Your task to perform on an android device: Open my contact list Image 0: 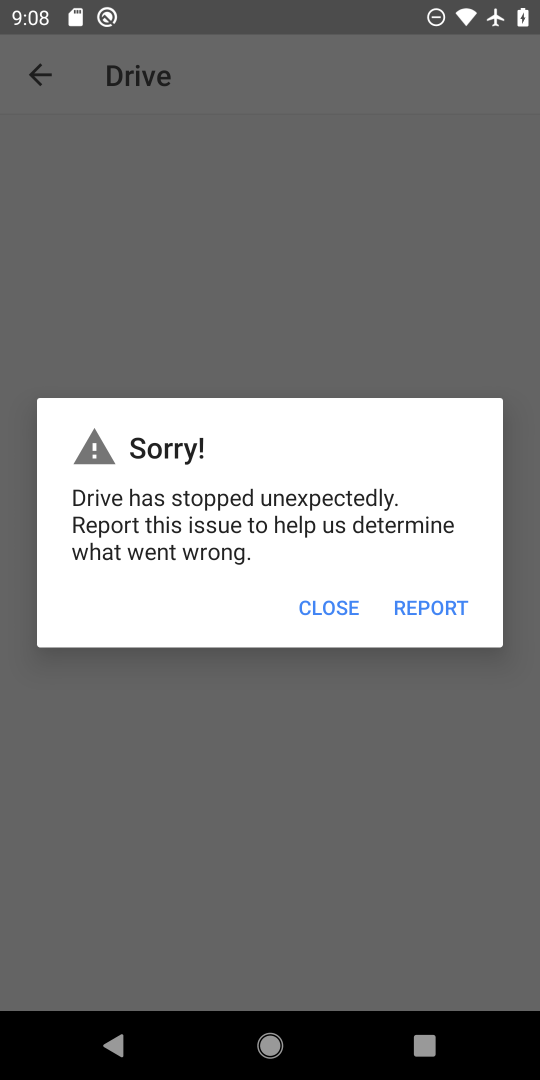
Step 0: press home button
Your task to perform on an android device: Open my contact list Image 1: 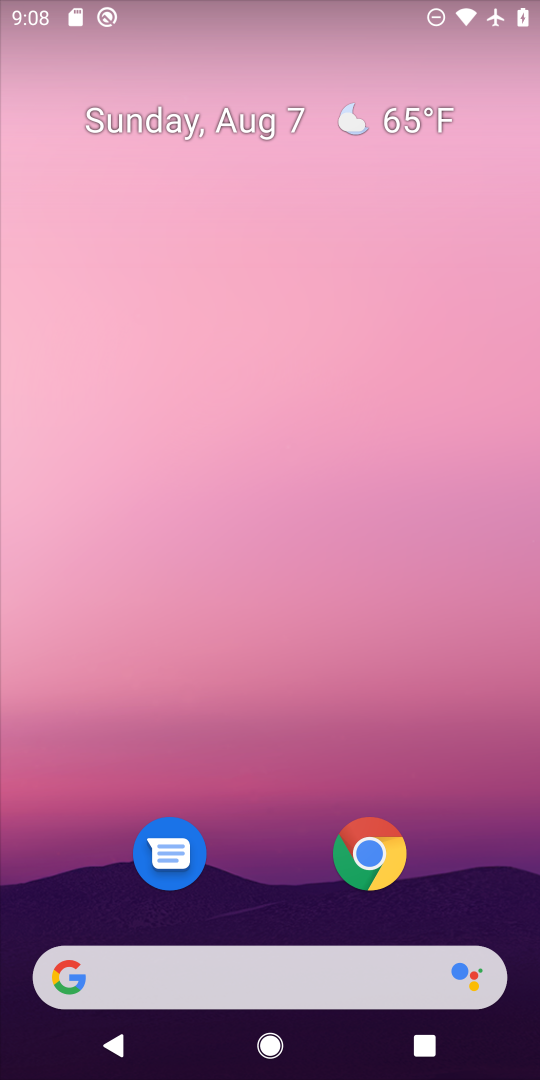
Step 1: drag from (227, 770) to (212, 318)
Your task to perform on an android device: Open my contact list Image 2: 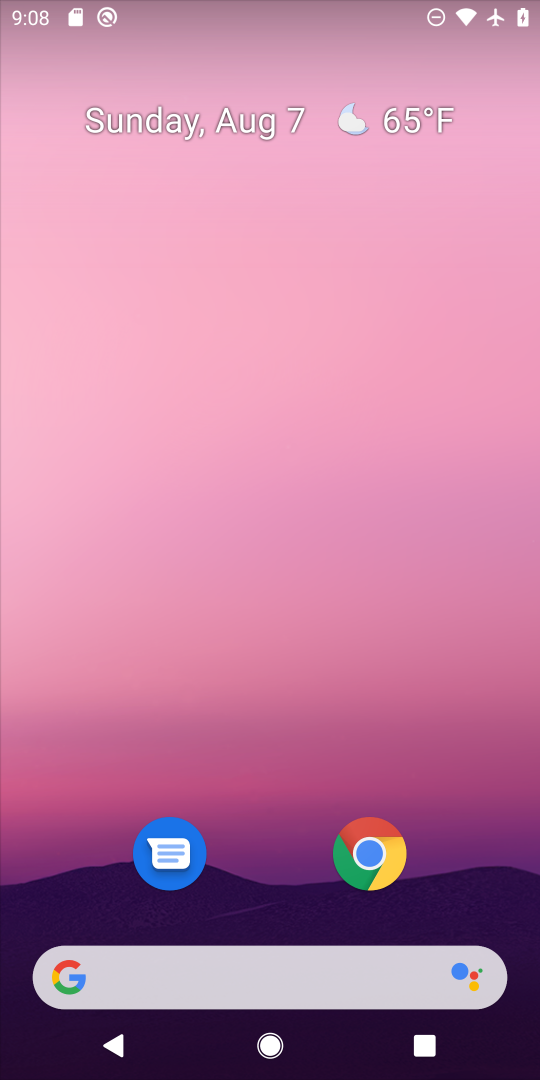
Step 2: drag from (253, 890) to (233, 118)
Your task to perform on an android device: Open my contact list Image 3: 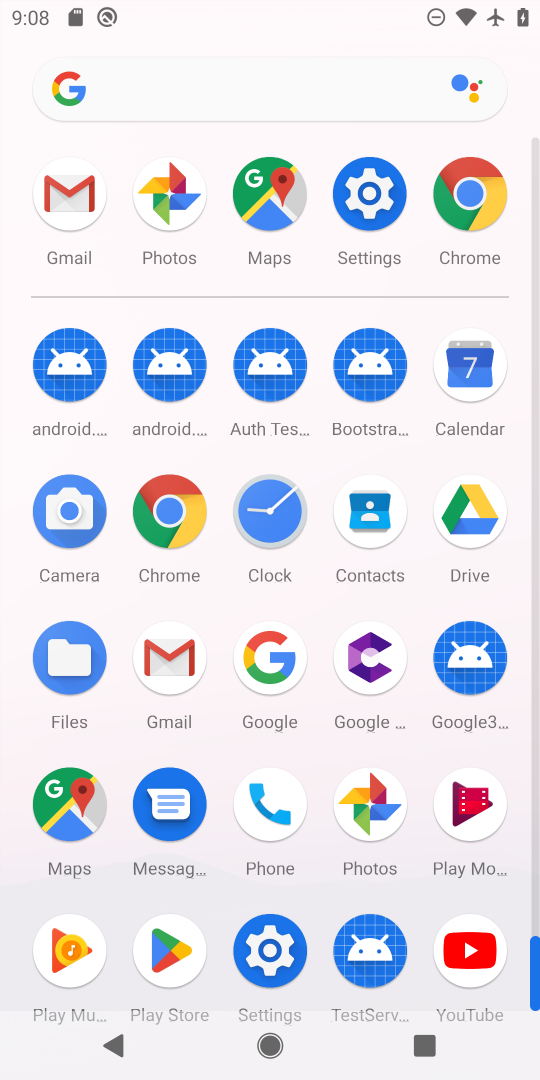
Step 3: click (371, 531)
Your task to perform on an android device: Open my contact list Image 4: 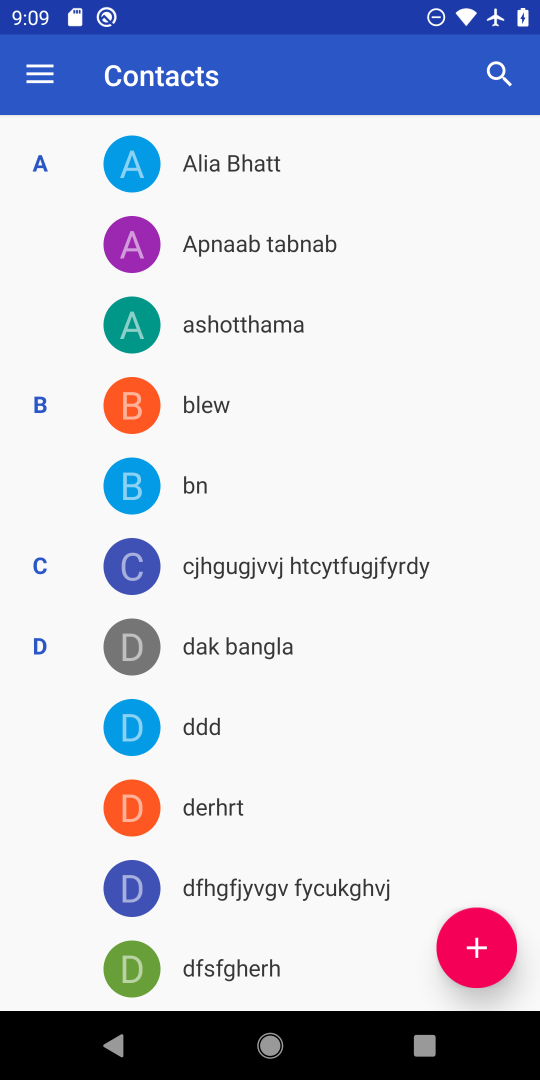
Step 4: task complete